Your task to perform on an android device: Show the shopping cart on amazon. Image 0: 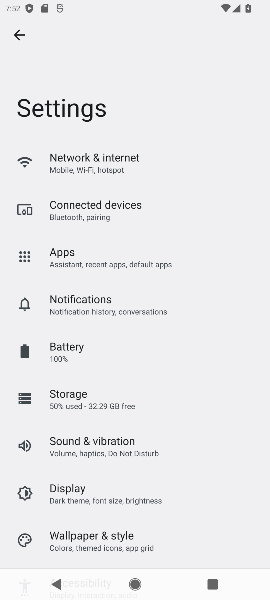
Step 0: press home button
Your task to perform on an android device: Show the shopping cart on amazon. Image 1: 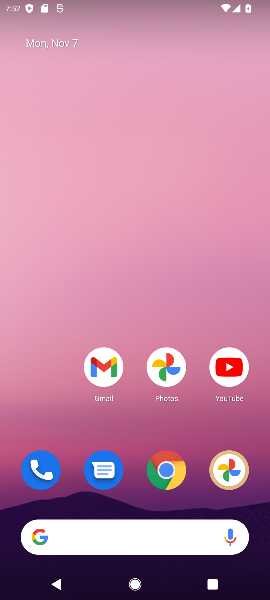
Step 1: click (172, 472)
Your task to perform on an android device: Show the shopping cart on amazon. Image 2: 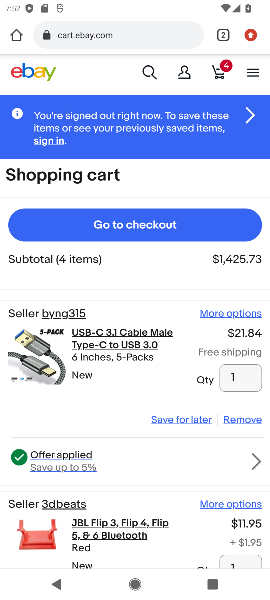
Step 2: click (114, 26)
Your task to perform on an android device: Show the shopping cart on amazon. Image 3: 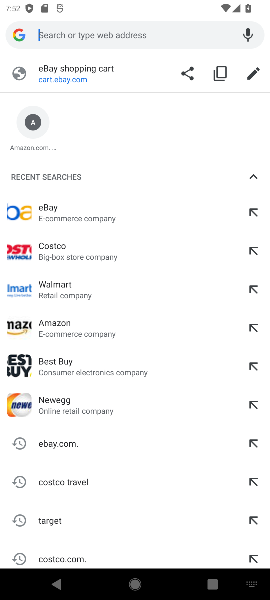
Step 3: type "amazon"
Your task to perform on an android device: Show the shopping cart on amazon. Image 4: 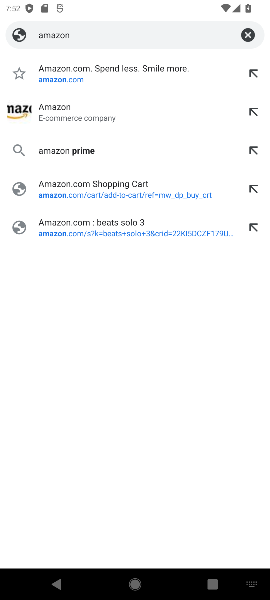
Step 4: click (44, 123)
Your task to perform on an android device: Show the shopping cart on amazon. Image 5: 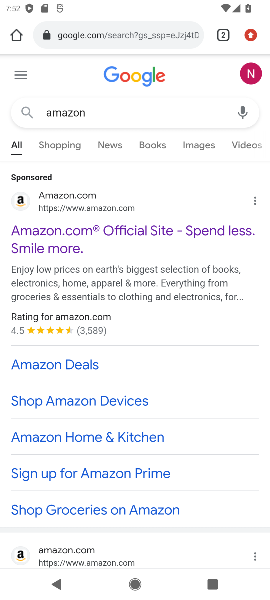
Step 5: click (65, 237)
Your task to perform on an android device: Show the shopping cart on amazon. Image 6: 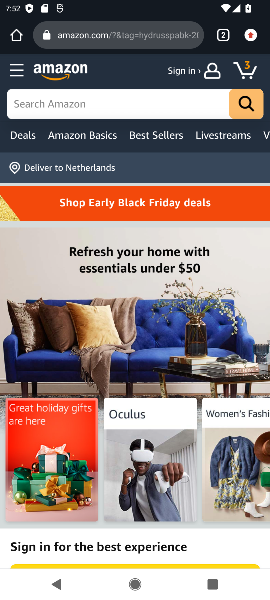
Step 6: click (163, 77)
Your task to perform on an android device: Show the shopping cart on amazon. Image 7: 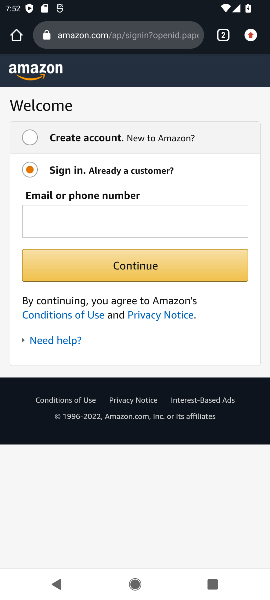
Step 7: press back button
Your task to perform on an android device: Show the shopping cart on amazon. Image 8: 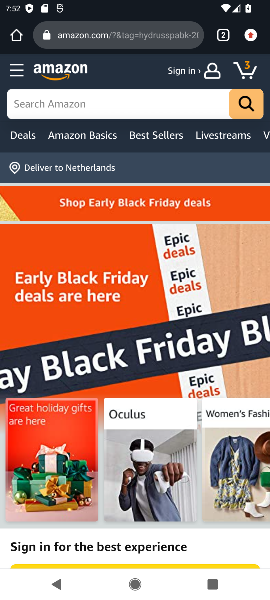
Step 8: click (240, 72)
Your task to perform on an android device: Show the shopping cart on amazon. Image 9: 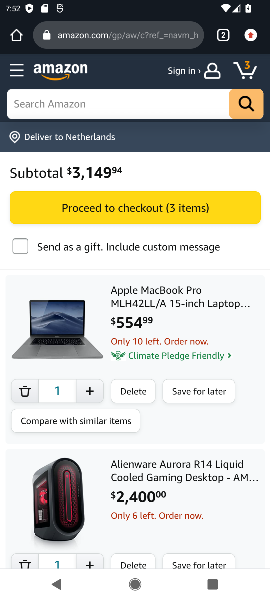
Step 9: task complete